Your task to perform on an android device: turn on the 24-hour format for clock Image 0: 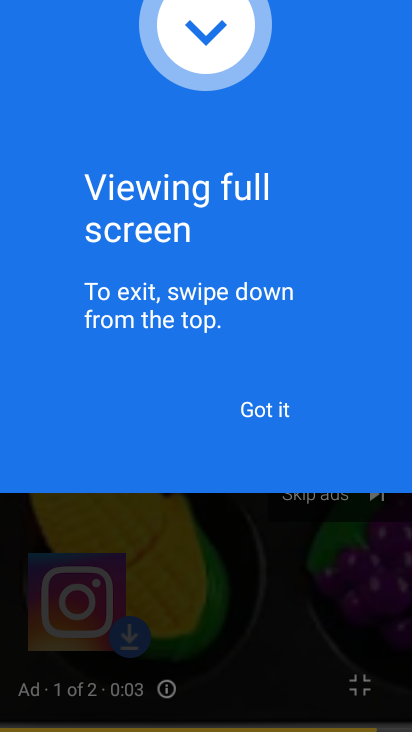
Step 0: press home button
Your task to perform on an android device: turn on the 24-hour format for clock Image 1: 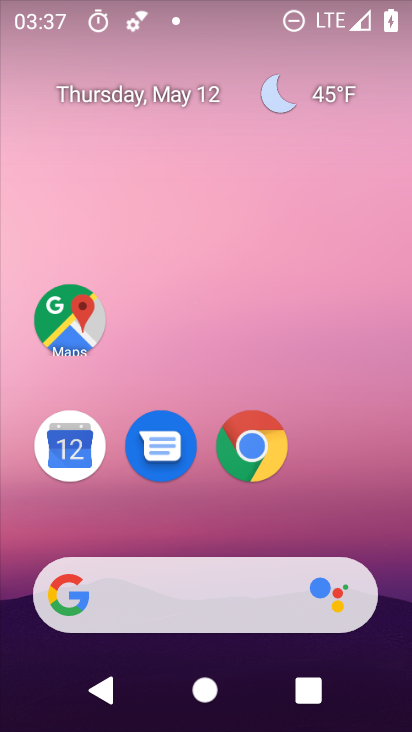
Step 1: drag from (192, 532) to (194, 147)
Your task to perform on an android device: turn on the 24-hour format for clock Image 2: 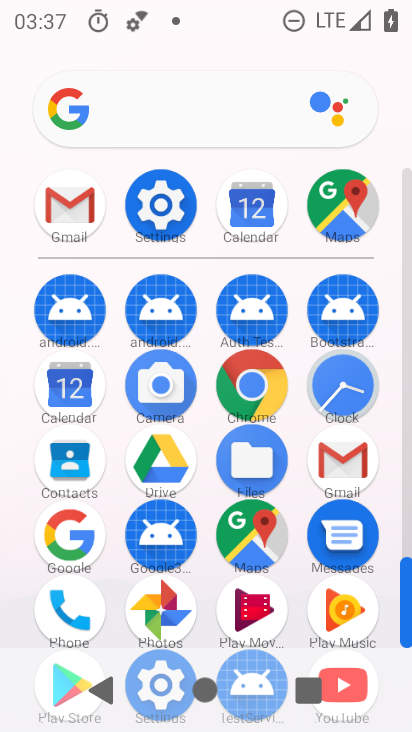
Step 2: click (324, 382)
Your task to perform on an android device: turn on the 24-hour format for clock Image 3: 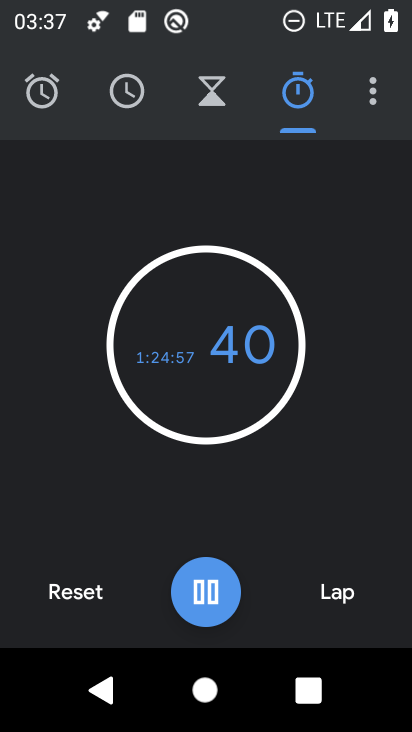
Step 3: click (389, 85)
Your task to perform on an android device: turn on the 24-hour format for clock Image 4: 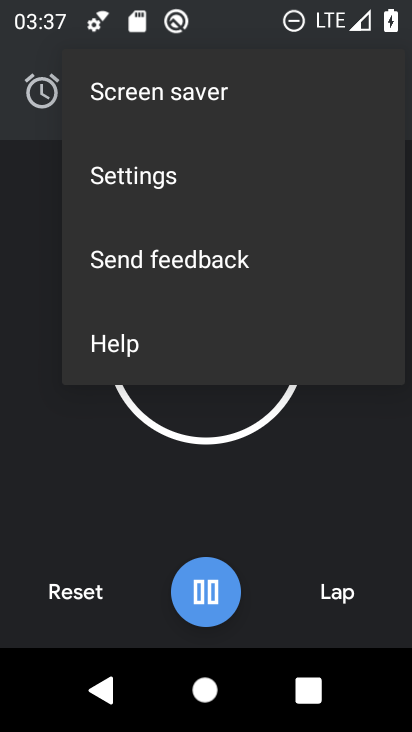
Step 4: click (164, 187)
Your task to perform on an android device: turn on the 24-hour format for clock Image 5: 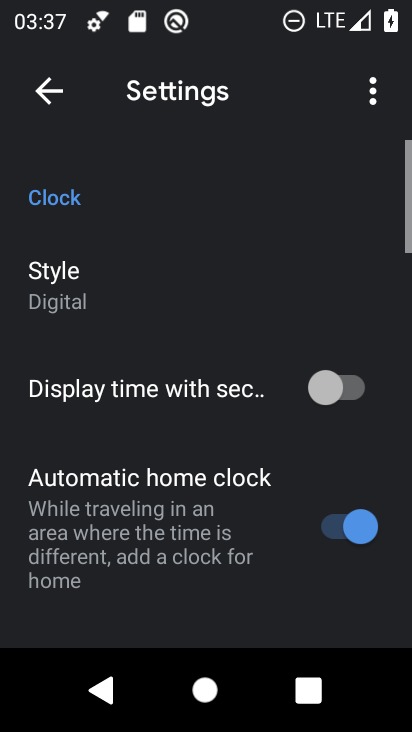
Step 5: drag from (274, 522) to (288, 191)
Your task to perform on an android device: turn on the 24-hour format for clock Image 6: 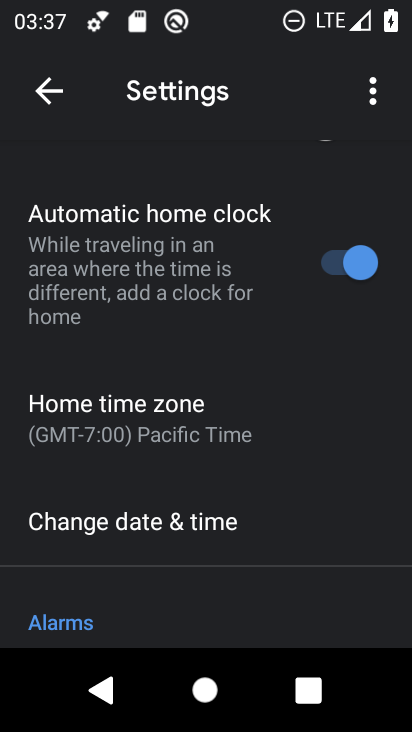
Step 6: click (224, 518)
Your task to perform on an android device: turn on the 24-hour format for clock Image 7: 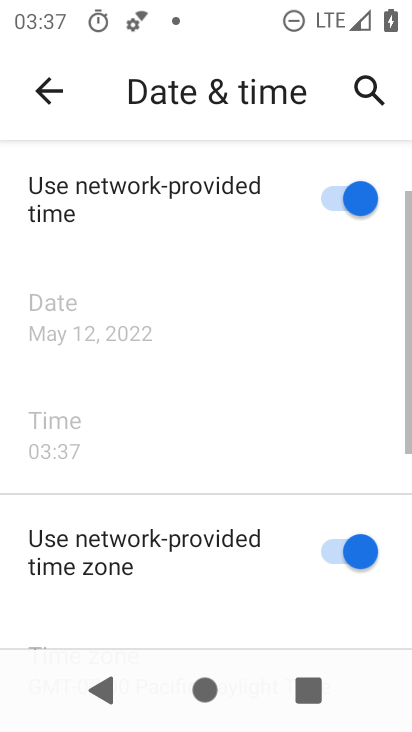
Step 7: task complete